Your task to perform on an android device: toggle sleep mode Image 0: 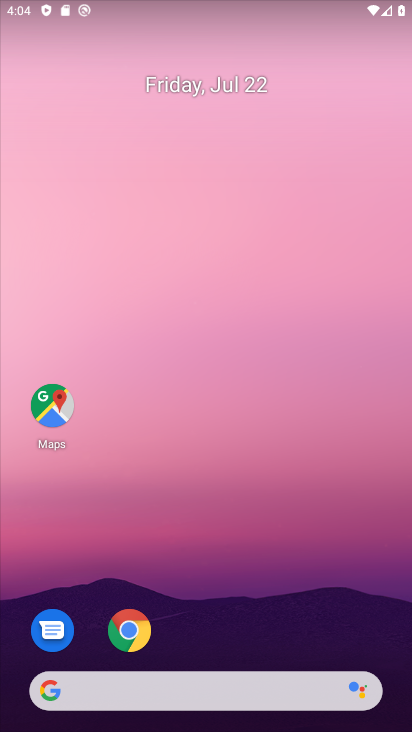
Step 0: drag from (195, 627) to (203, 17)
Your task to perform on an android device: toggle sleep mode Image 1: 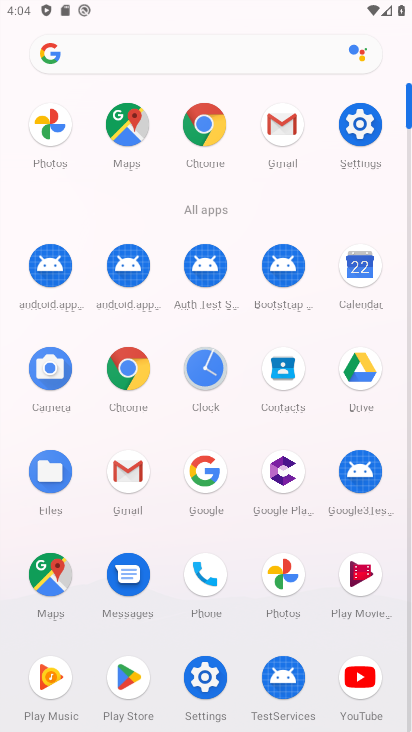
Step 1: task complete